Your task to perform on an android device: Open the stopwatch Image 0: 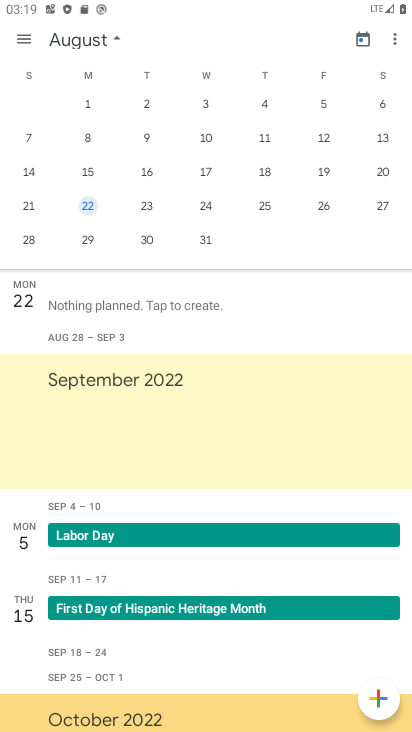
Step 0: press home button
Your task to perform on an android device: Open the stopwatch Image 1: 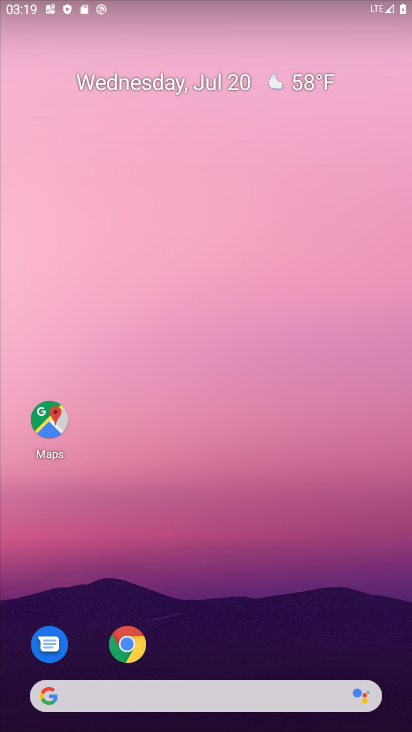
Step 1: drag from (31, 664) to (311, 56)
Your task to perform on an android device: Open the stopwatch Image 2: 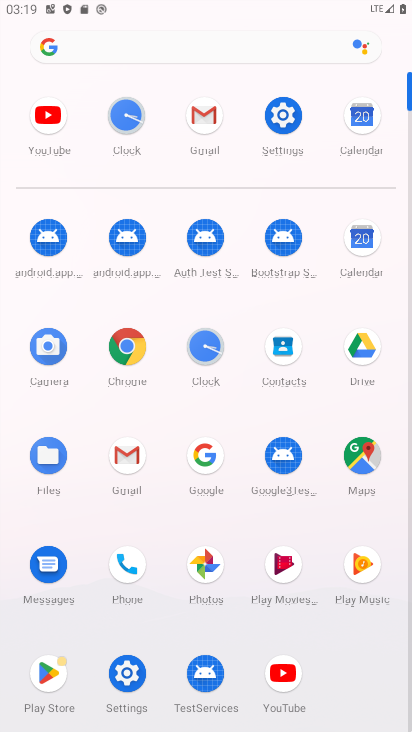
Step 2: click (213, 351)
Your task to perform on an android device: Open the stopwatch Image 3: 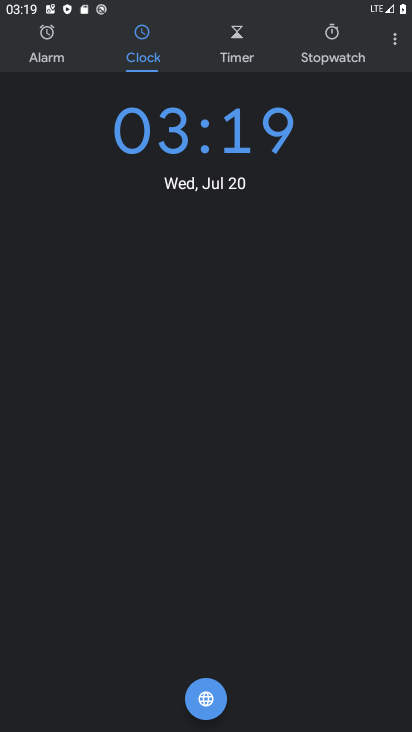
Step 3: click (310, 41)
Your task to perform on an android device: Open the stopwatch Image 4: 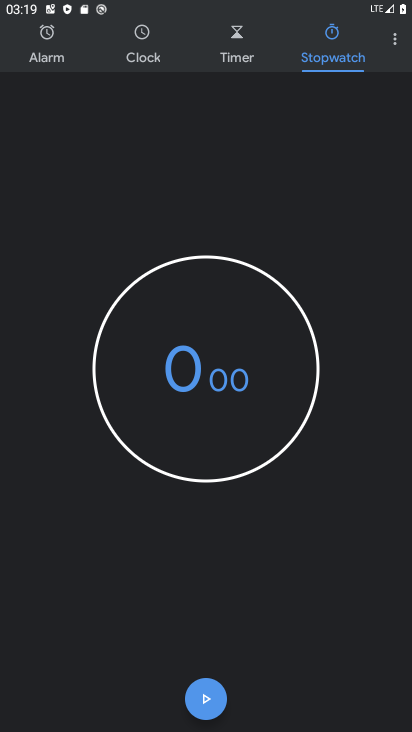
Step 4: click (195, 384)
Your task to perform on an android device: Open the stopwatch Image 5: 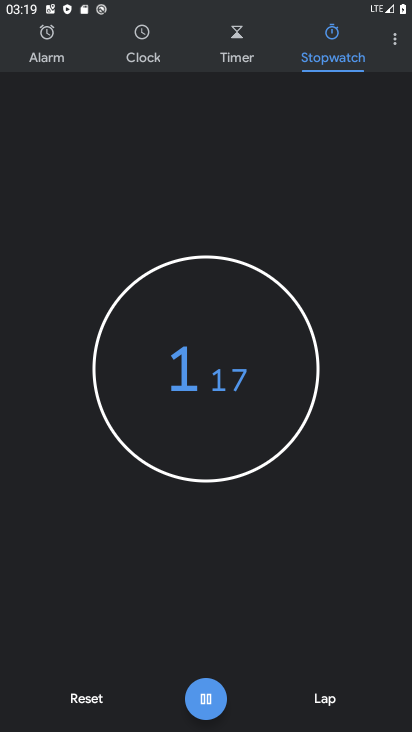
Step 5: click (192, 378)
Your task to perform on an android device: Open the stopwatch Image 6: 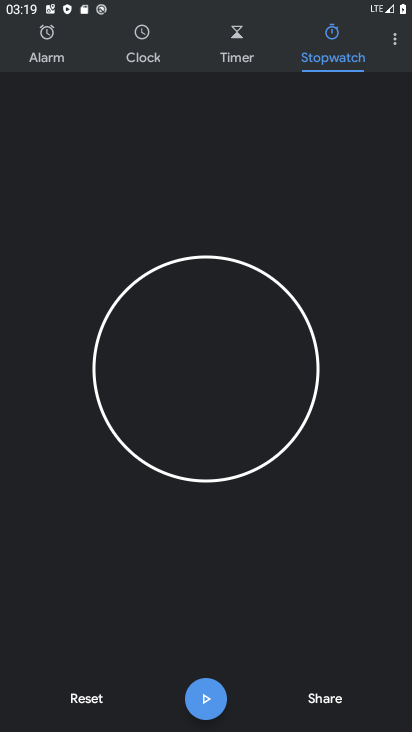
Step 6: task complete